Your task to perform on an android device: Go to network settings Image 0: 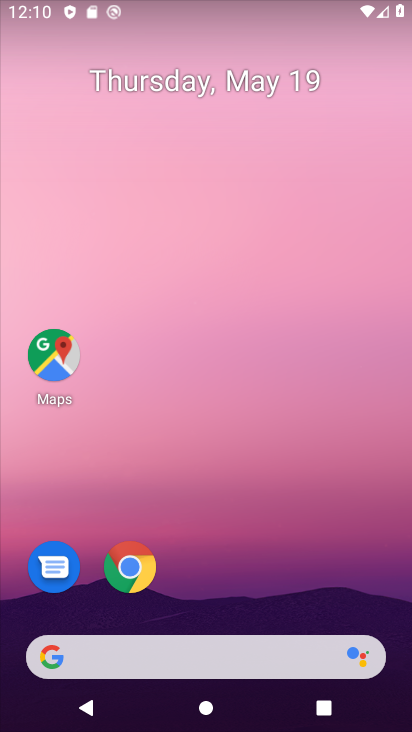
Step 0: drag from (224, 568) to (278, 162)
Your task to perform on an android device: Go to network settings Image 1: 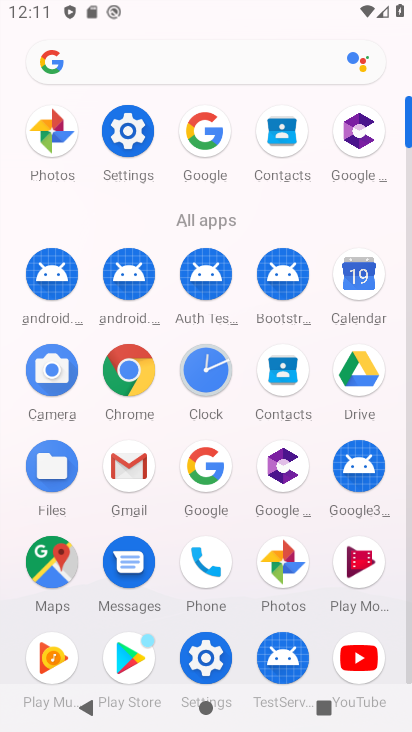
Step 1: click (126, 128)
Your task to perform on an android device: Go to network settings Image 2: 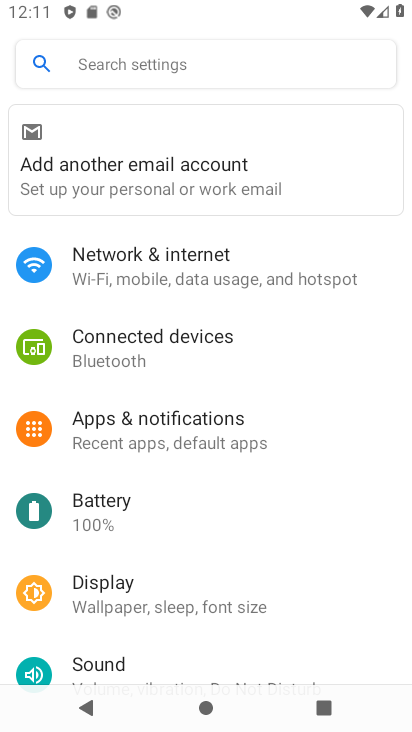
Step 2: click (210, 250)
Your task to perform on an android device: Go to network settings Image 3: 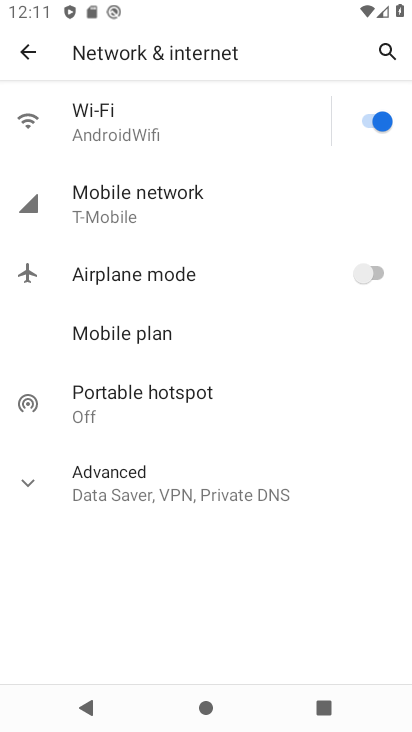
Step 3: task complete